Your task to perform on an android device: delete location history Image 0: 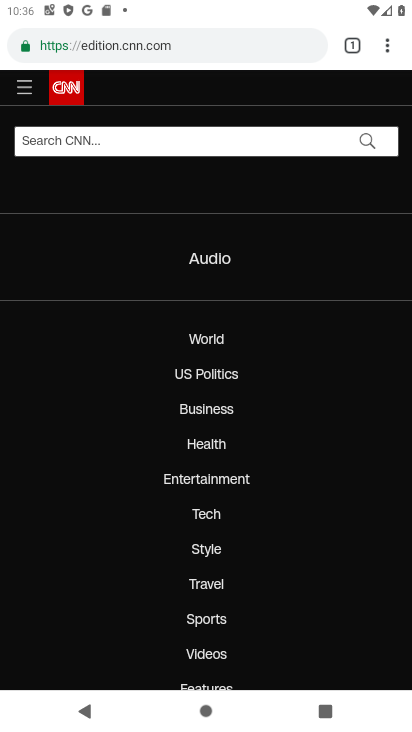
Step 0: press home button
Your task to perform on an android device: delete location history Image 1: 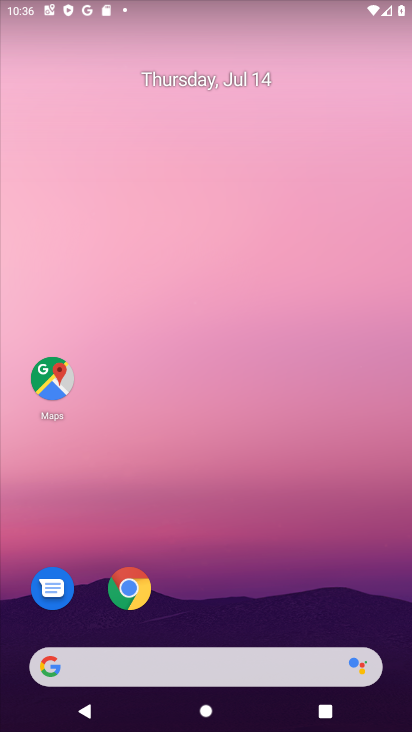
Step 1: click (43, 375)
Your task to perform on an android device: delete location history Image 2: 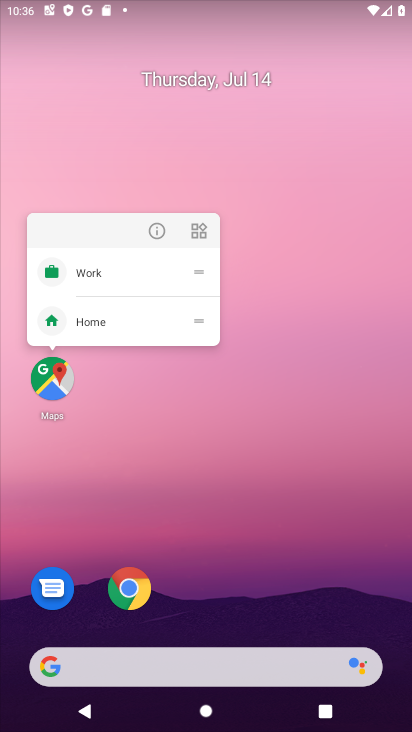
Step 2: click (43, 375)
Your task to perform on an android device: delete location history Image 3: 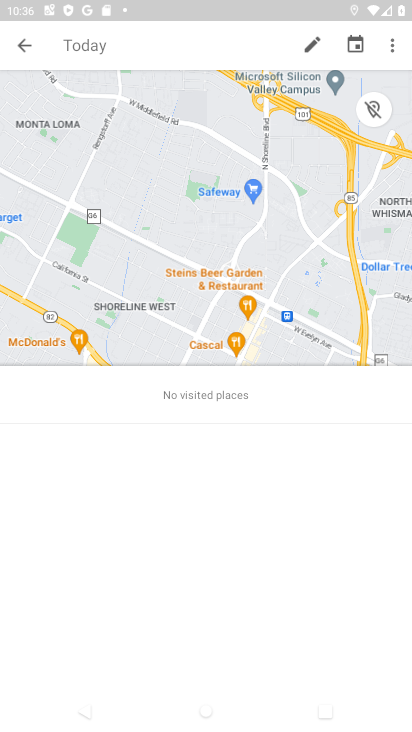
Step 3: click (395, 40)
Your task to perform on an android device: delete location history Image 4: 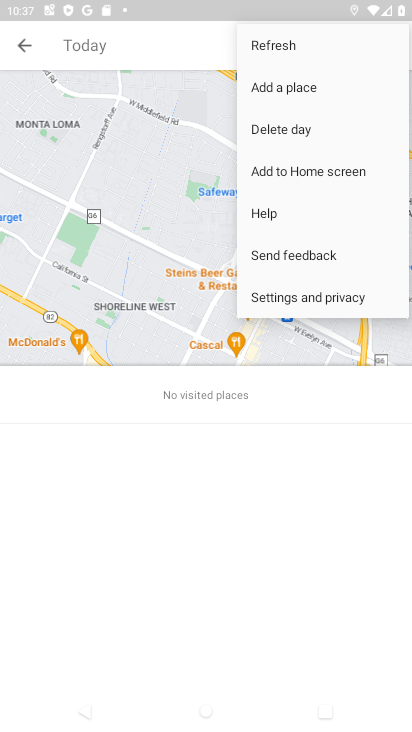
Step 4: click (301, 299)
Your task to perform on an android device: delete location history Image 5: 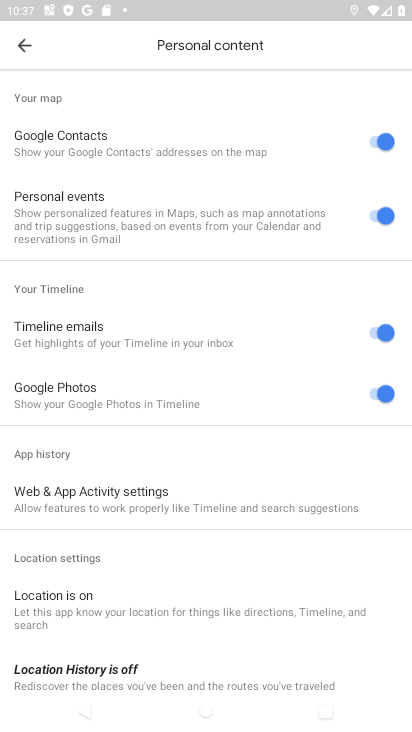
Step 5: drag from (126, 614) to (307, 77)
Your task to perform on an android device: delete location history Image 6: 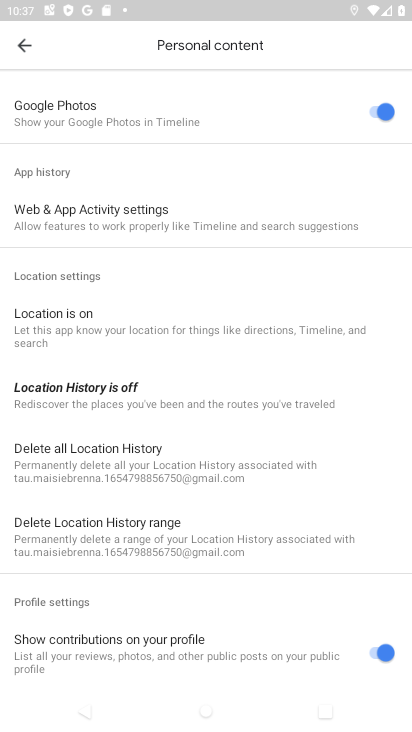
Step 6: click (132, 455)
Your task to perform on an android device: delete location history Image 7: 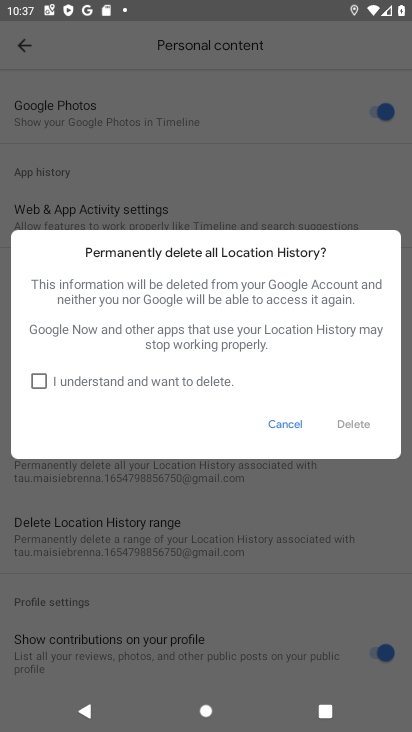
Step 7: click (37, 380)
Your task to perform on an android device: delete location history Image 8: 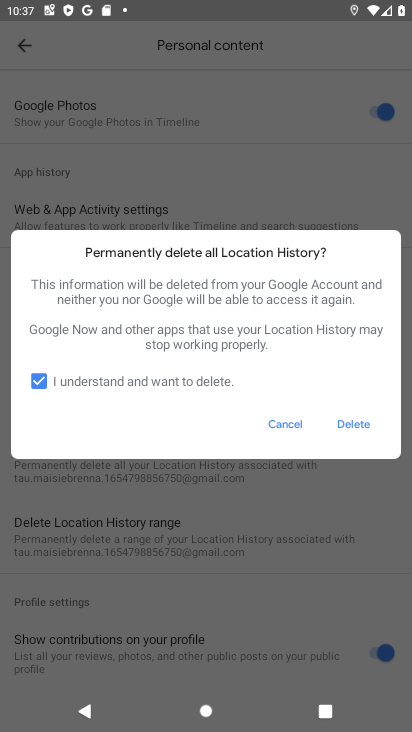
Step 8: click (354, 421)
Your task to perform on an android device: delete location history Image 9: 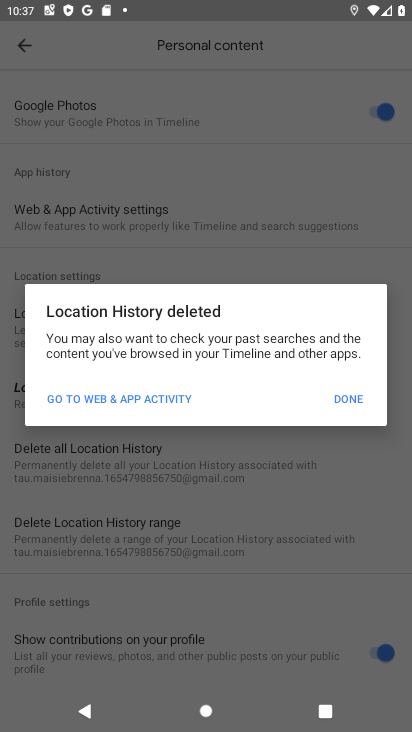
Step 9: click (346, 393)
Your task to perform on an android device: delete location history Image 10: 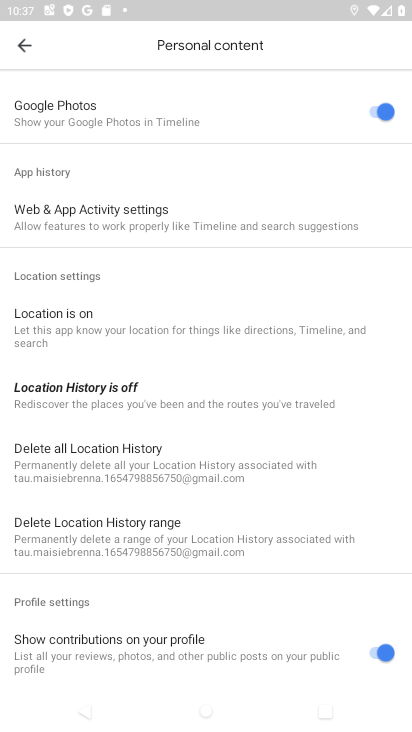
Step 10: task complete